Your task to perform on an android device: turn on bluetooth scan Image 0: 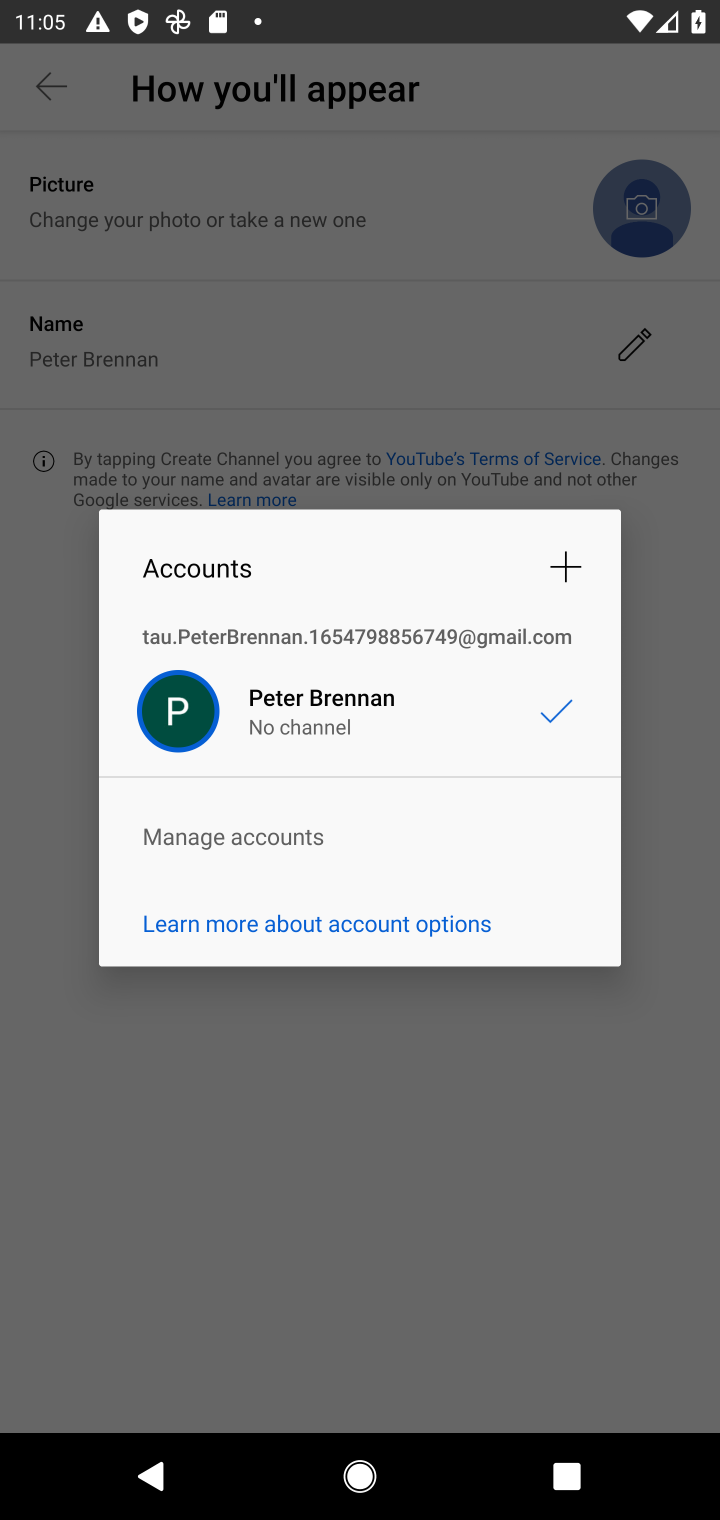
Step 0: press home button
Your task to perform on an android device: turn on bluetooth scan Image 1: 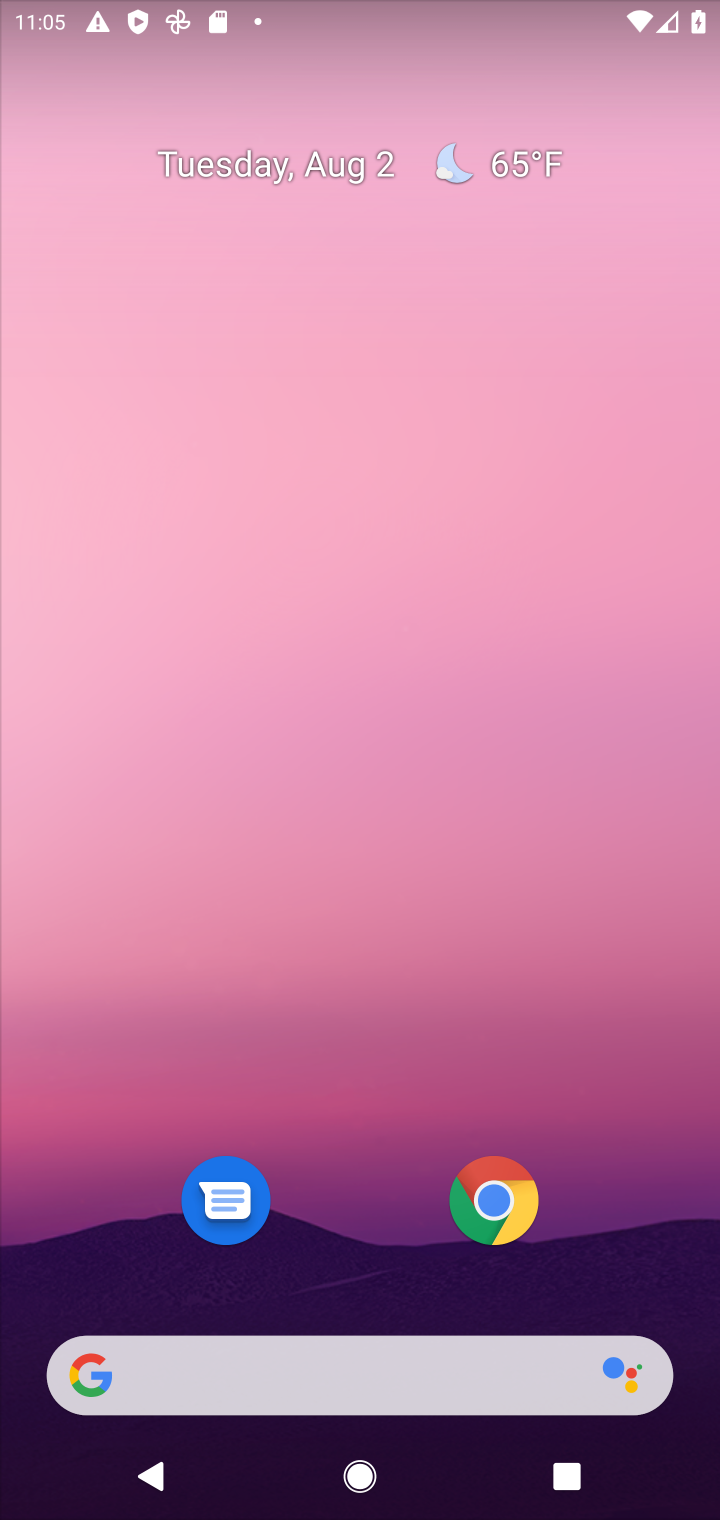
Step 1: drag from (678, 1283) to (544, 115)
Your task to perform on an android device: turn on bluetooth scan Image 2: 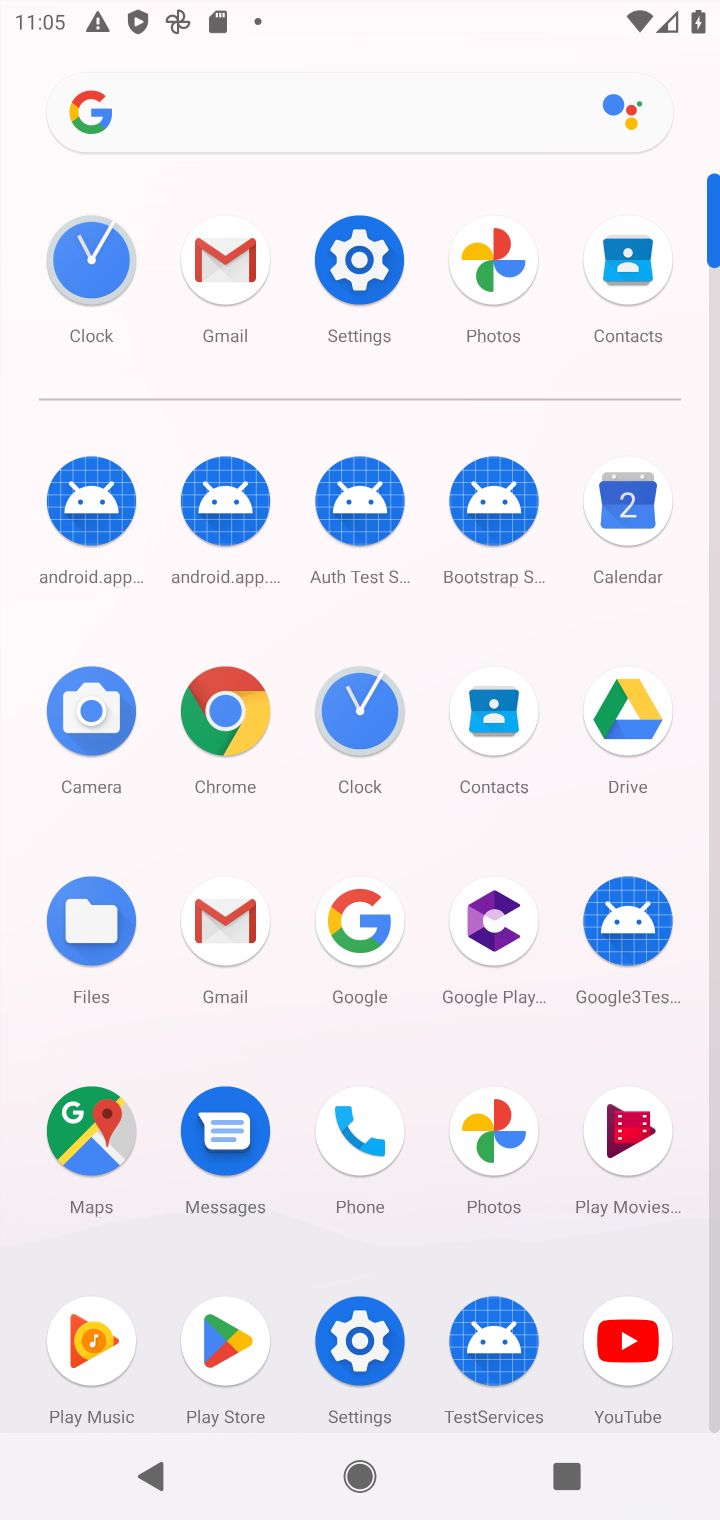
Step 2: click (358, 1338)
Your task to perform on an android device: turn on bluetooth scan Image 3: 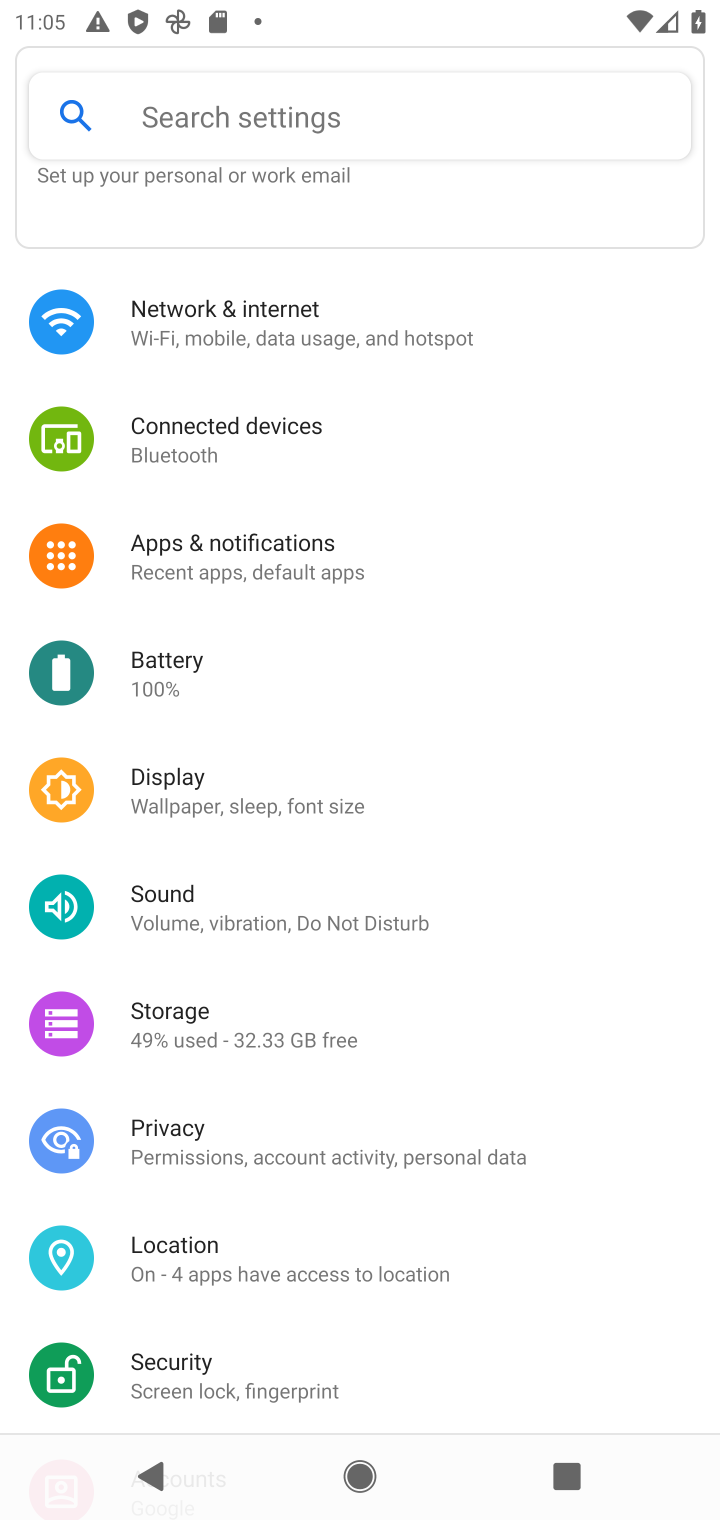
Step 3: click (153, 1260)
Your task to perform on an android device: turn on bluetooth scan Image 4: 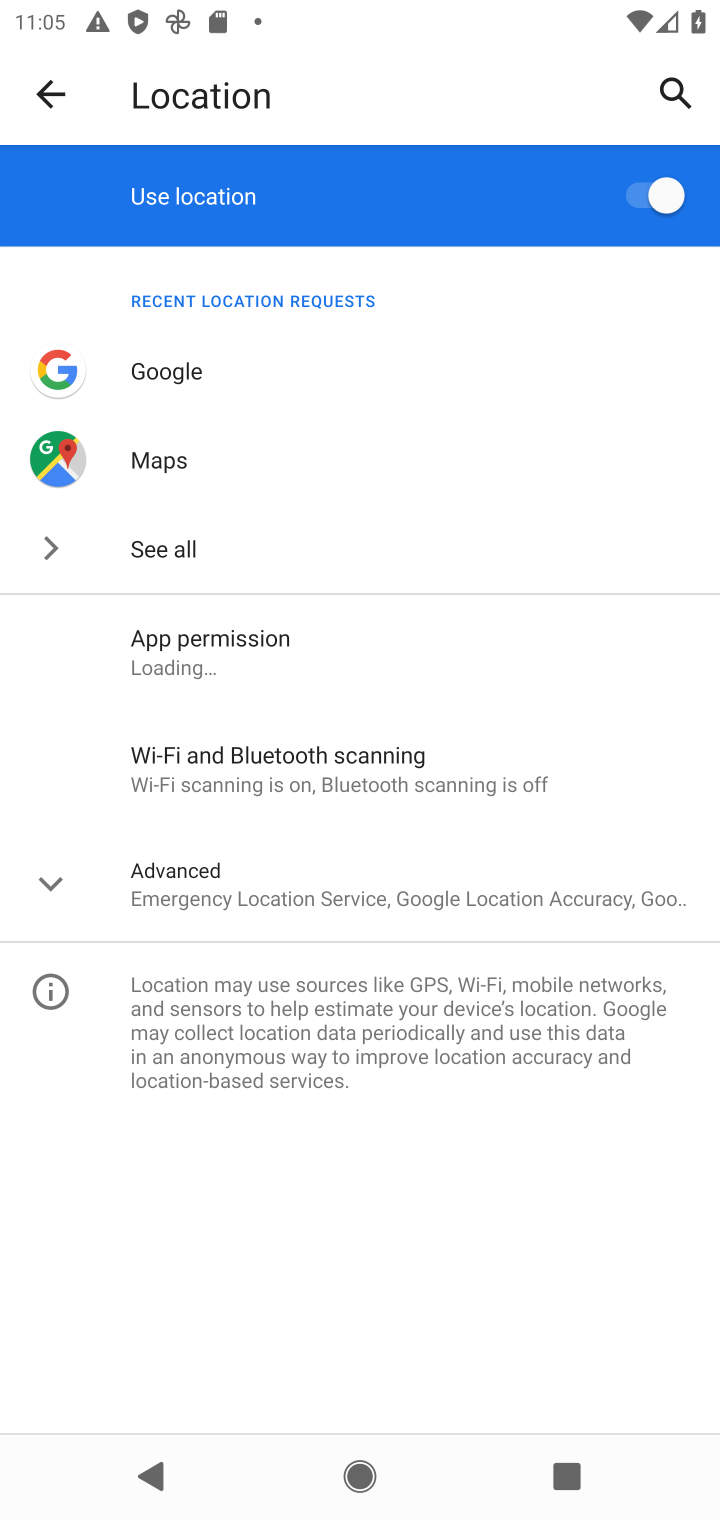
Step 4: click (247, 745)
Your task to perform on an android device: turn on bluetooth scan Image 5: 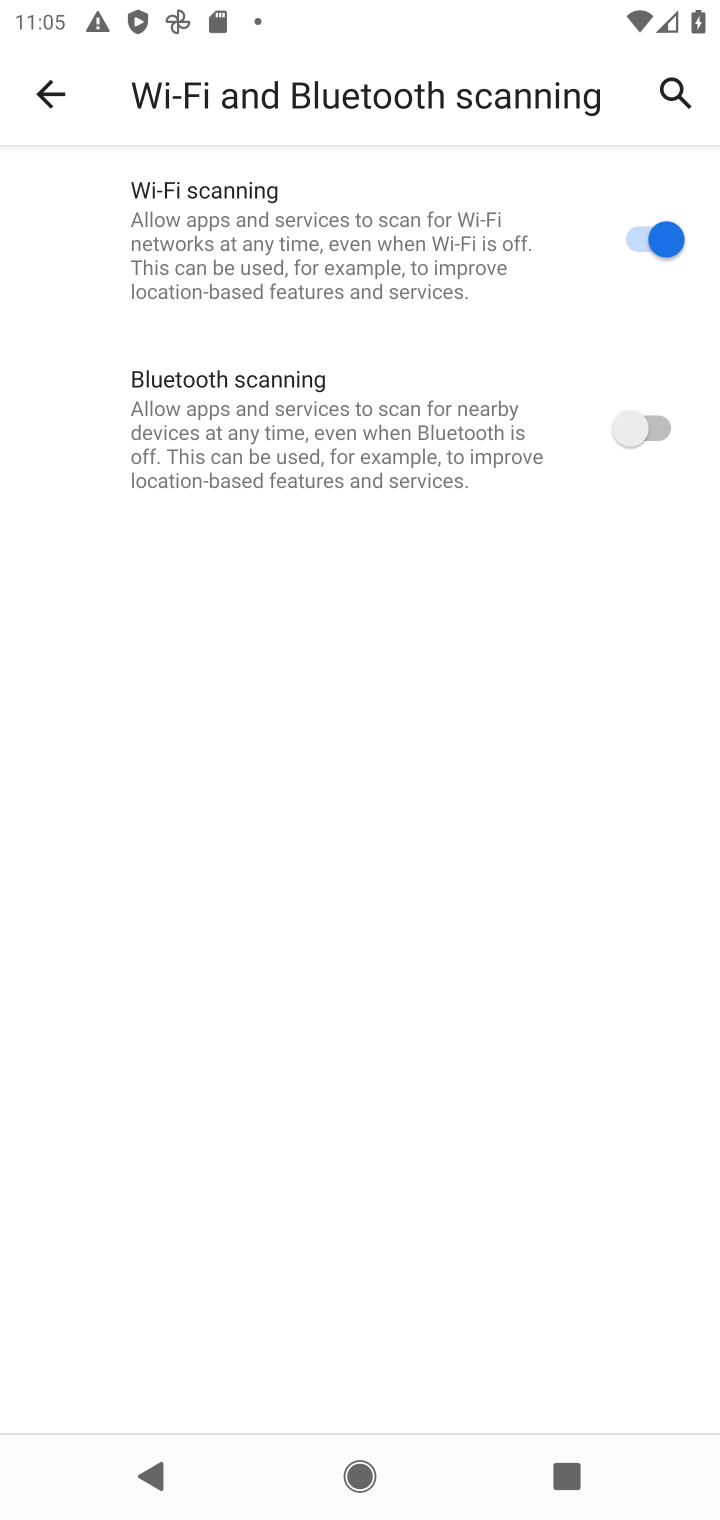
Step 5: click (663, 429)
Your task to perform on an android device: turn on bluetooth scan Image 6: 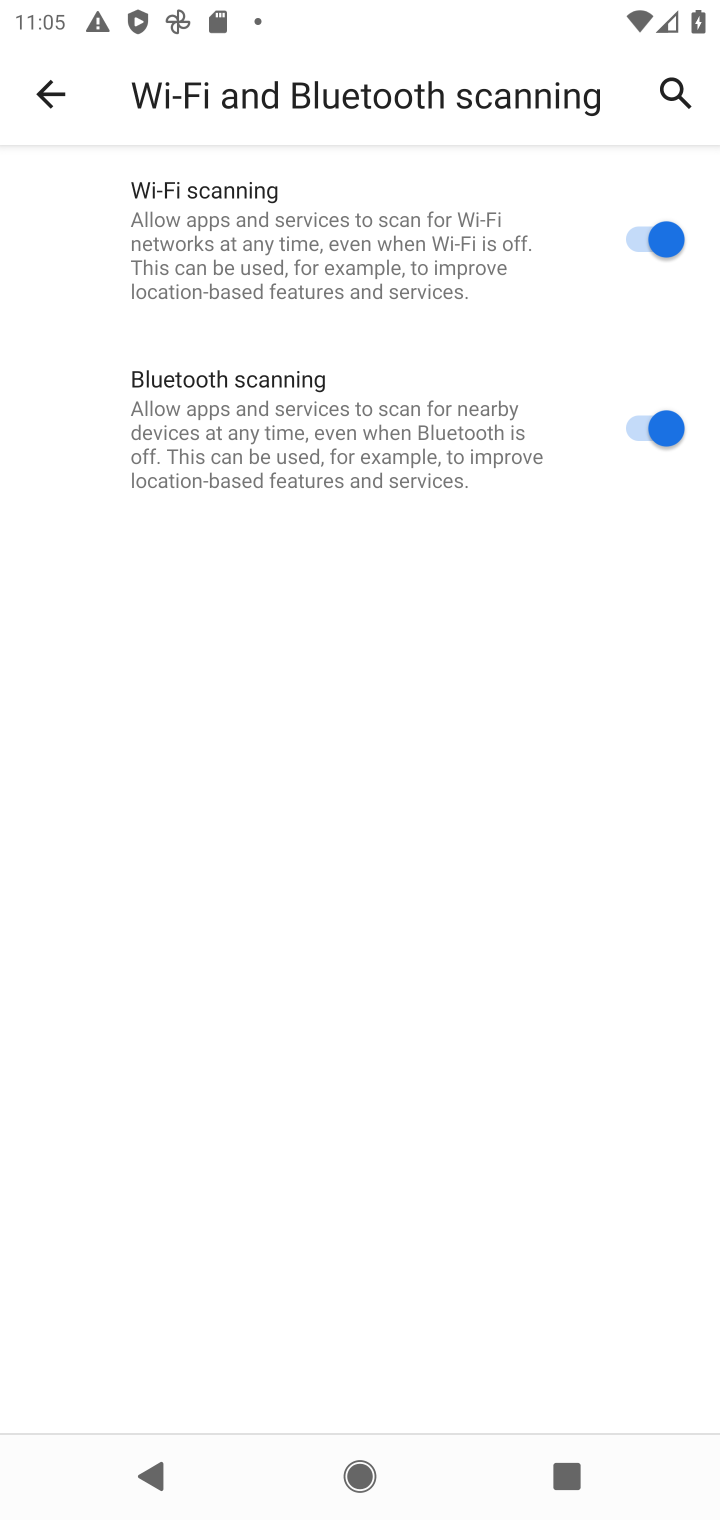
Step 6: task complete